Your task to perform on an android device: make emails show in primary in the gmail app Image 0: 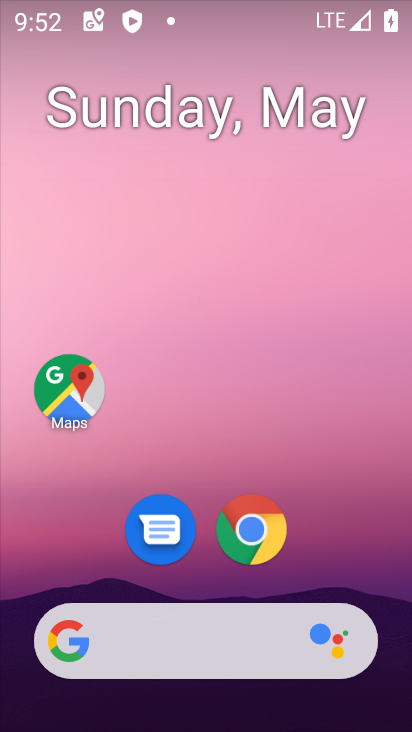
Step 0: drag from (359, 537) to (251, 47)
Your task to perform on an android device: make emails show in primary in the gmail app Image 1: 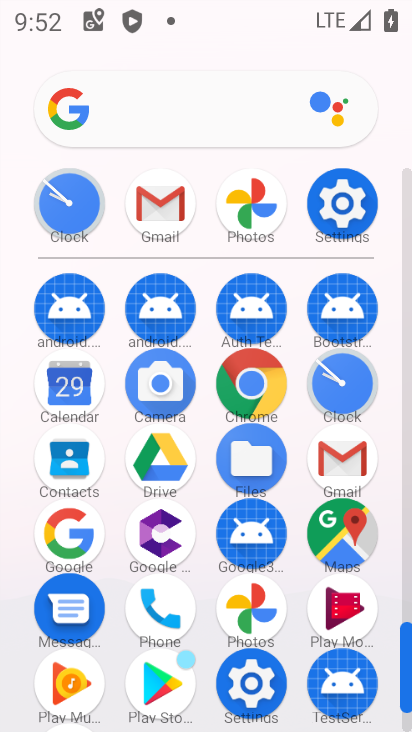
Step 1: task complete